Your task to perform on an android device: Do I have any events today? Image 0: 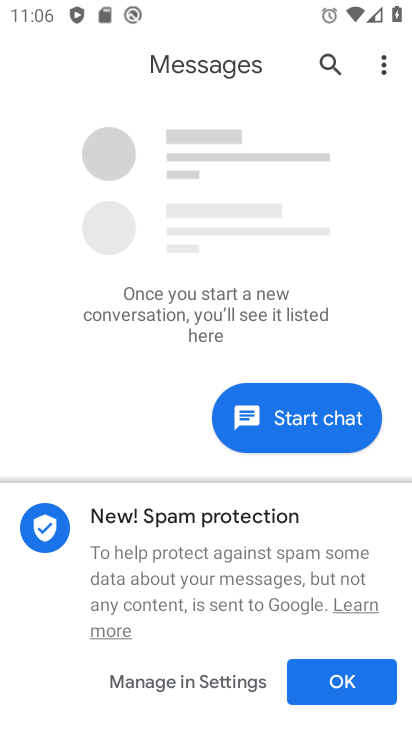
Step 0: press home button
Your task to perform on an android device: Do I have any events today? Image 1: 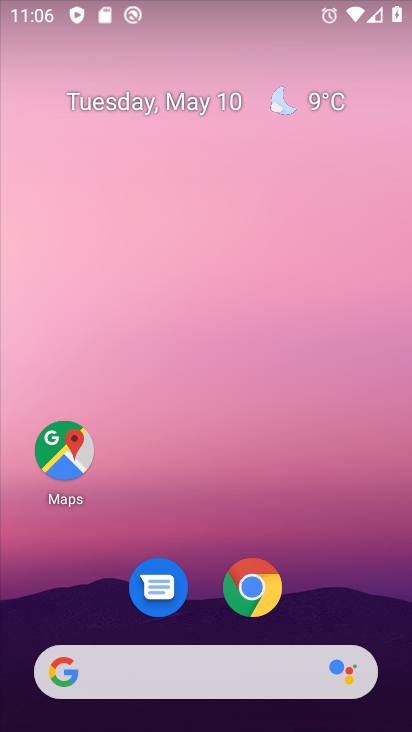
Step 1: drag from (309, 601) to (315, 21)
Your task to perform on an android device: Do I have any events today? Image 2: 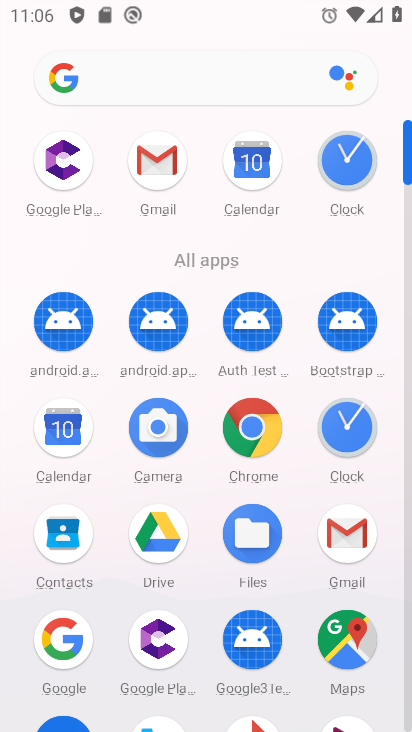
Step 2: click (244, 178)
Your task to perform on an android device: Do I have any events today? Image 3: 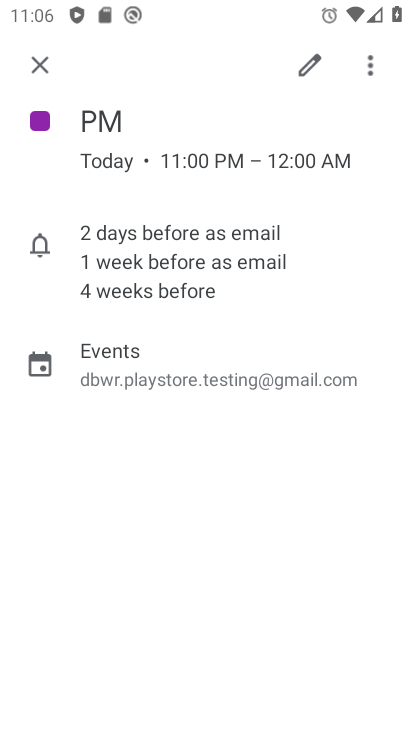
Step 3: click (34, 72)
Your task to perform on an android device: Do I have any events today? Image 4: 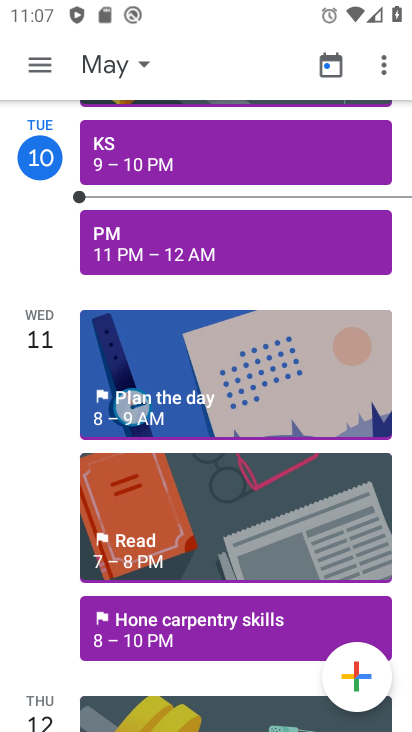
Step 4: click (192, 247)
Your task to perform on an android device: Do I have any events today? Image 5: 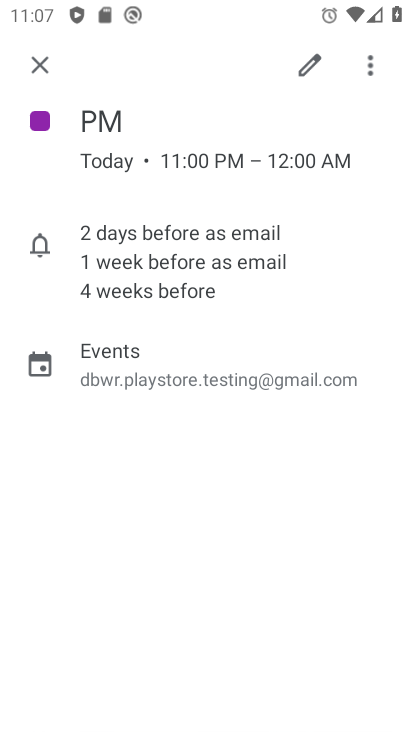
Step 5: task complete